Your task to perform on an android device: toggle wifi Image 0: 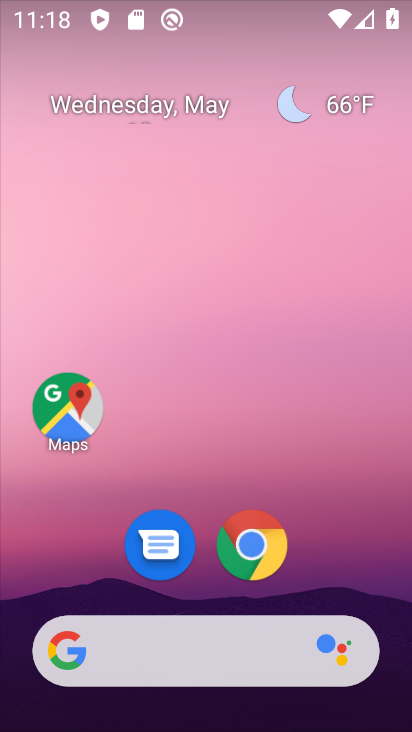
Step 0: drag from (232, 546) to (262, 15)
Your task to perform on an android device: toggle wifi Image 1: 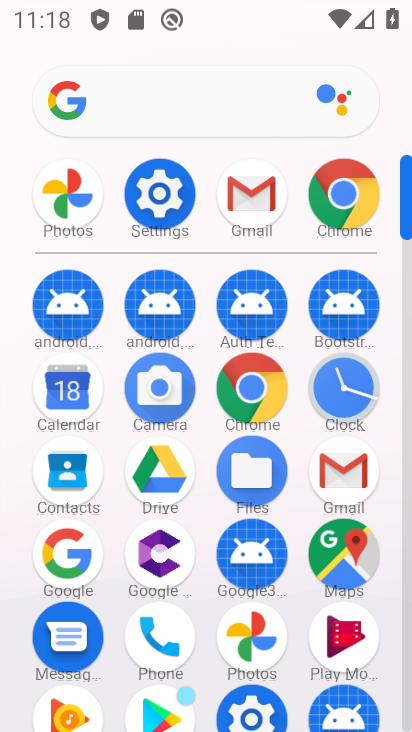
Step 1: click (145, 202)
Your task to perform on an android device: toggle wifi Image 2: 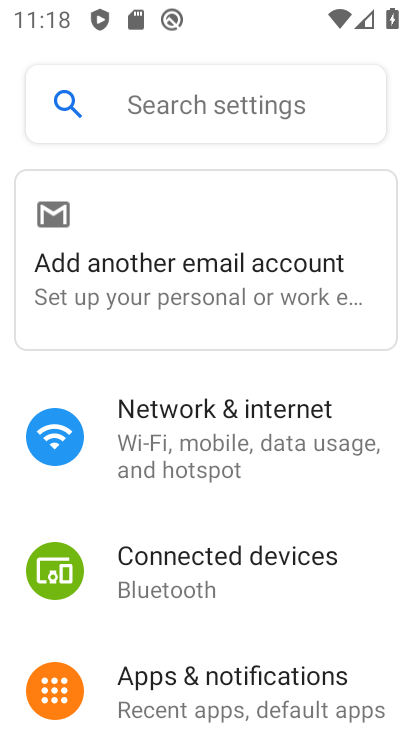
Step 2: click (260, 400)
Your task to perform on an android device: toggle wifi Image 3: 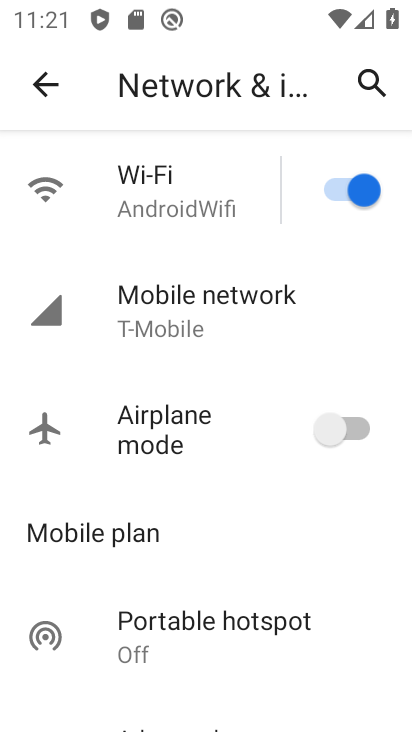
Step 3: click (361, 197)
Your task to perform on an android device: toggle wifi Image 4: 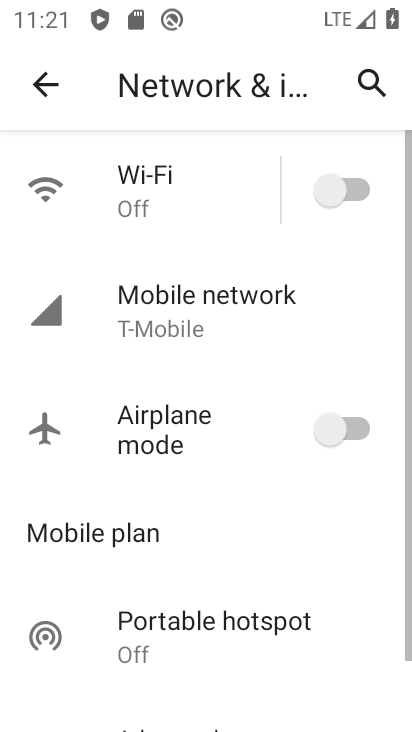
Step 4: task complete